Your task to perform on an android device: turn off improve location accuracy Image 0: 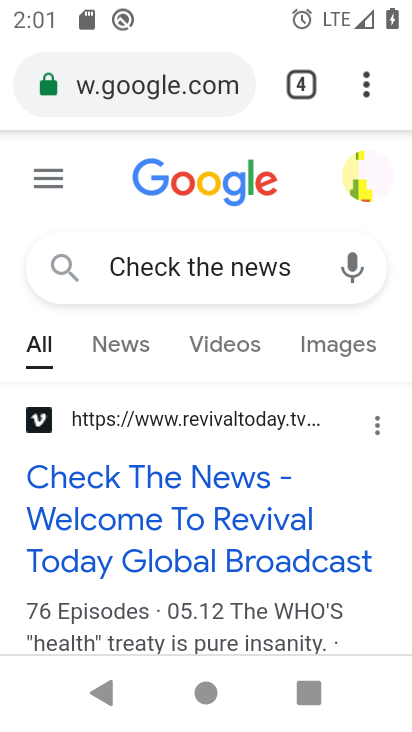
Step 0: task impossible